Your task to perform on an android device: toggle show notifications on the lock screen Image 0: 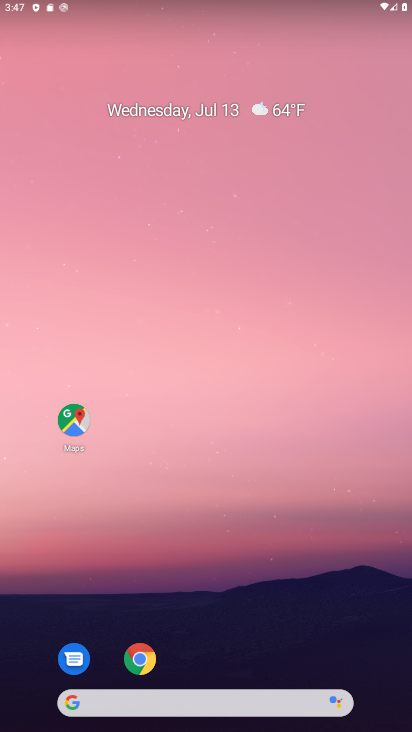
Step 0: drag from (140, 686) to (249, 229)
Your task to perform on an android device: toggle show notifications on the lock screen Image 1: 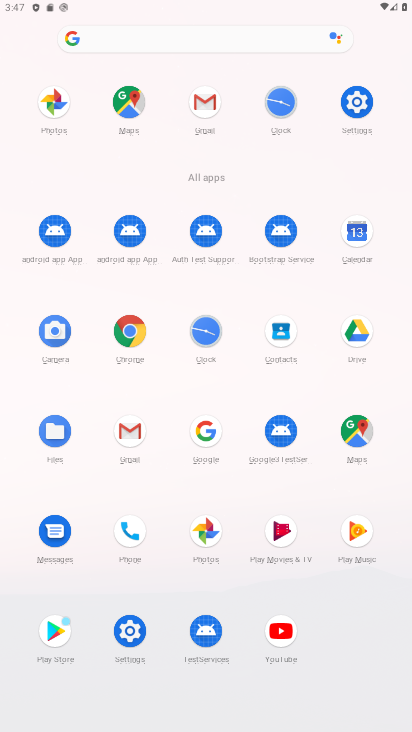
Step 1: click (124, 636)
Your task to perform on an android device: toggle show notifications on the lock screen Image 2: 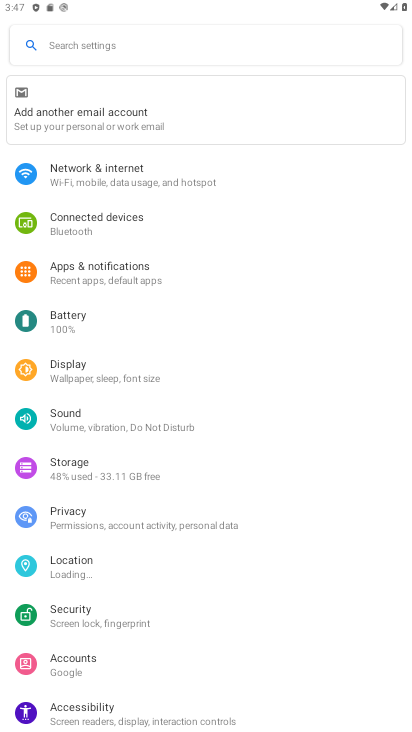
Step 2: click (123, 270)
Your task to perform on an android device: toggle show notifications on the lock screen Image 3: 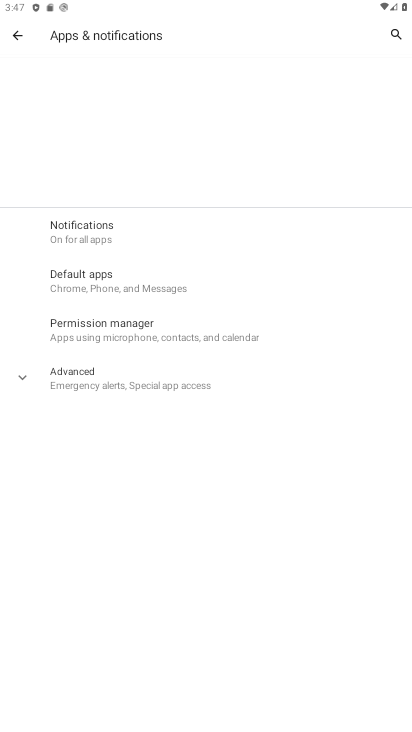
Step 3: click (123, 234)
Your task to perform on an android device: toggle show notifications on the lock screen Image 4: 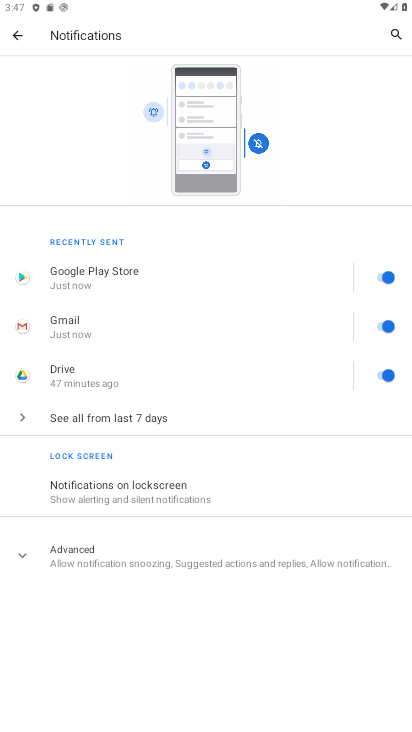
Step 4: click (188, 501)
Your task to perform on an android device: toggle show notifications on the lock screen Image 5: 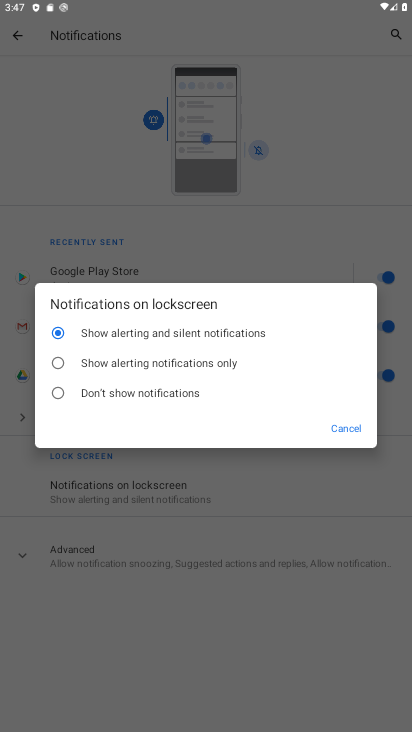
Step 5: click (130, 396)
Your task to perform on an android device: toggle show notifications on the lock screen Image 6: 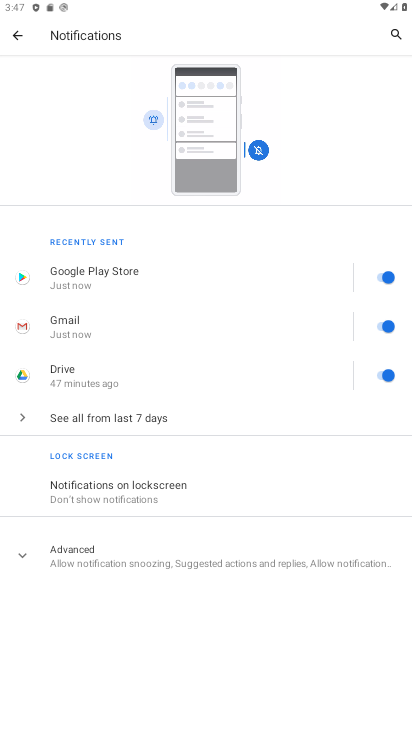
Step 6: task complete